Your task to perform on an android device: Go to accessibility settings Image 0: 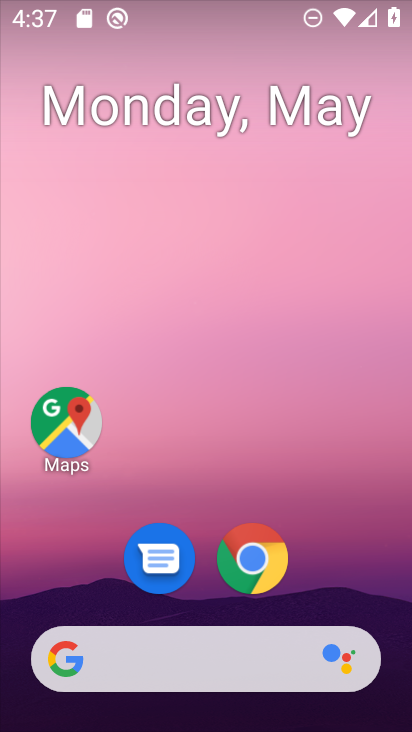
Step 0: drag from (324, 544) to (173, 88)
Your task to perform on an android device: Go to accessibility settings Image 1: 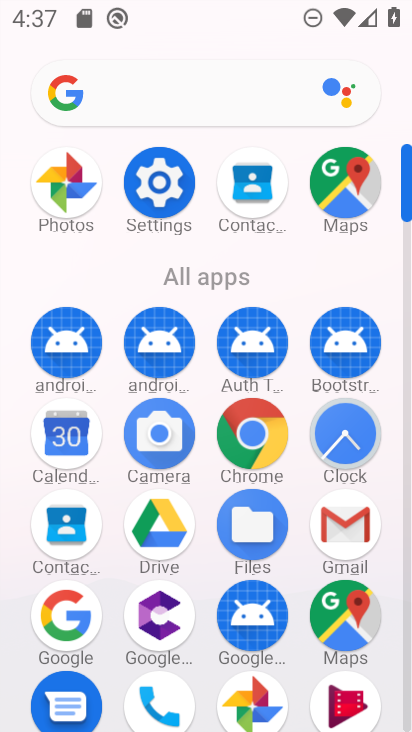
Step 1: click (158, 300)
Your task to perform on an android device: Go to accessibility settings Image 2: 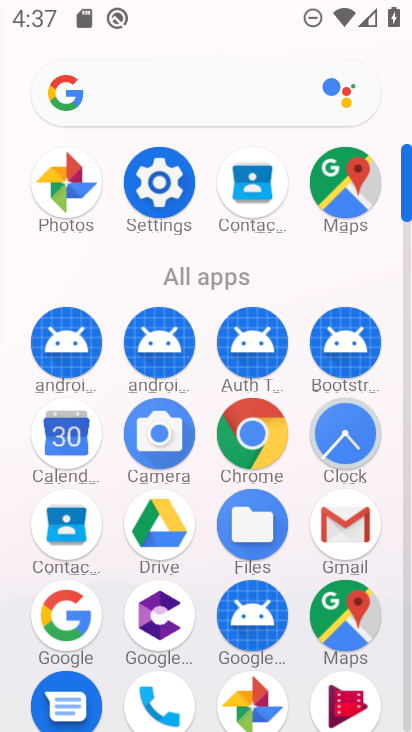
Step 2: click (158, 300)
Your task to perform on an android device: Go to accessibility settings Image 3: 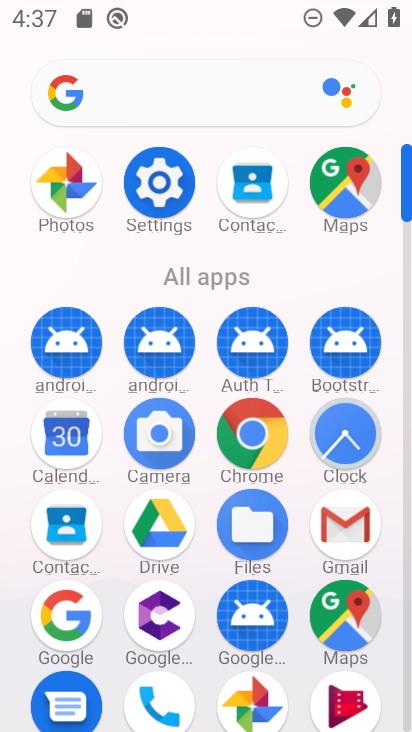
Step 3: click (157, 178)
Your task to perform on an android device: Go to accessibility settings Image 4: 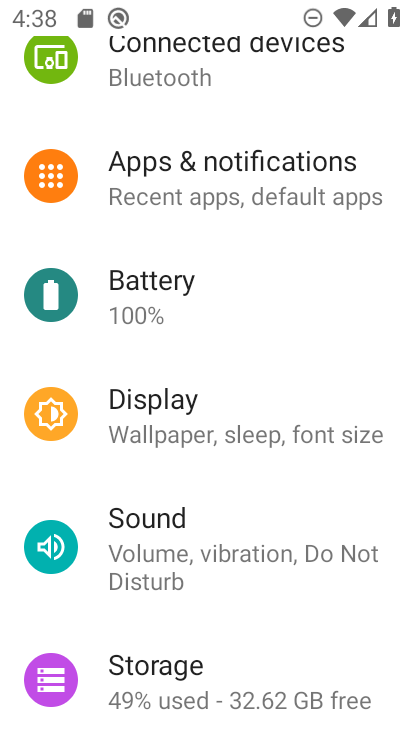
Step 4: drag from (207, 332) to (192, 211)
Your task to perform on an android device: Go to accessibility settings Image 5: 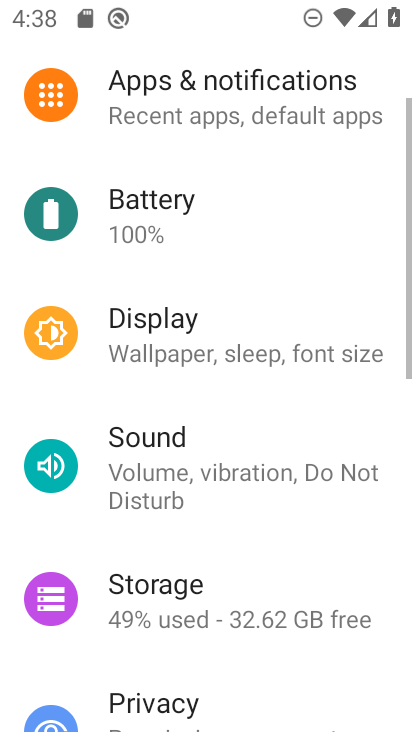
Step 5: drag from (234, 375) to (234, 234)
Your task to perform on an android device: Go to accessibility settings Image 6: 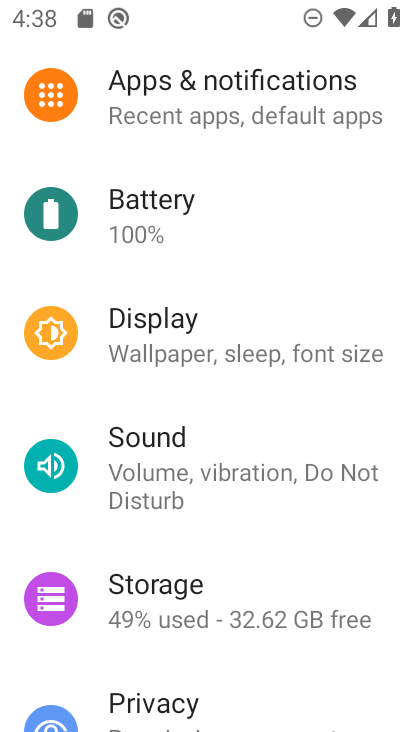
Step 6: drag from (214, 551) to (201, 168)
Your task to perform on an android device: Go to accessibility settings Image 7: 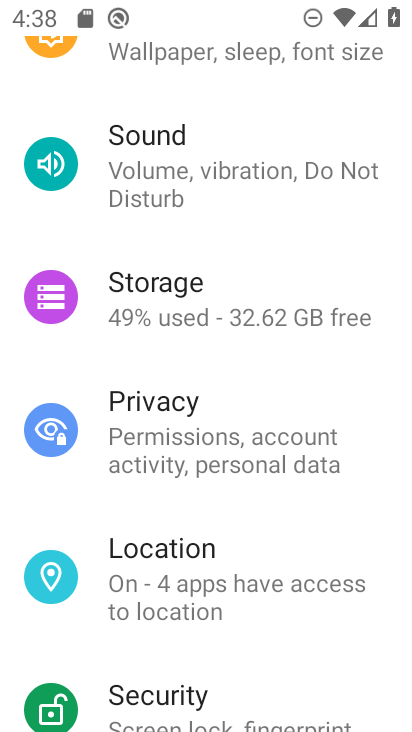
Step 7: drag from (226, 506) to (201, 254)
Your task to perform on an android device: Go to accessibility settings Image 8: 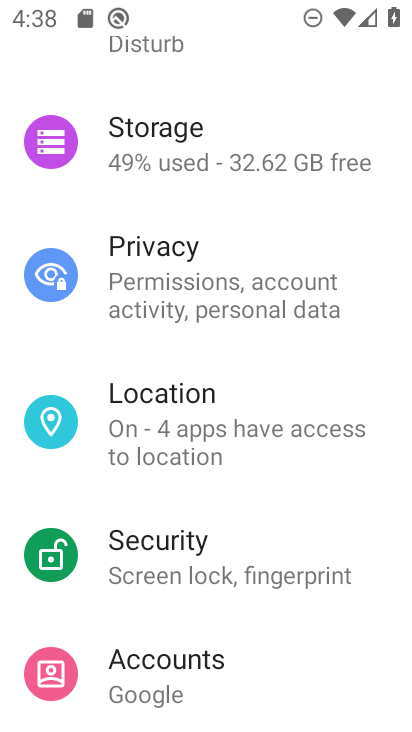
Step 8: drag from (192, 594) to (135, 204)
Your task to perform on an android device: Go to accessibility settings Image 9: 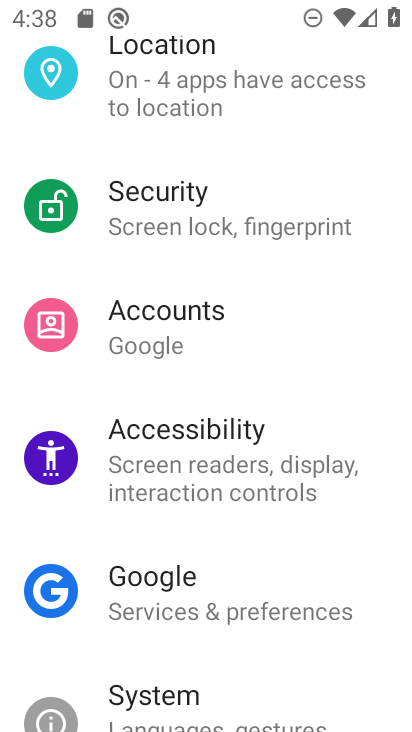
Step 9: click (189, 439)
Your task to perform on an android device: Go to accessibility settings Image 10: 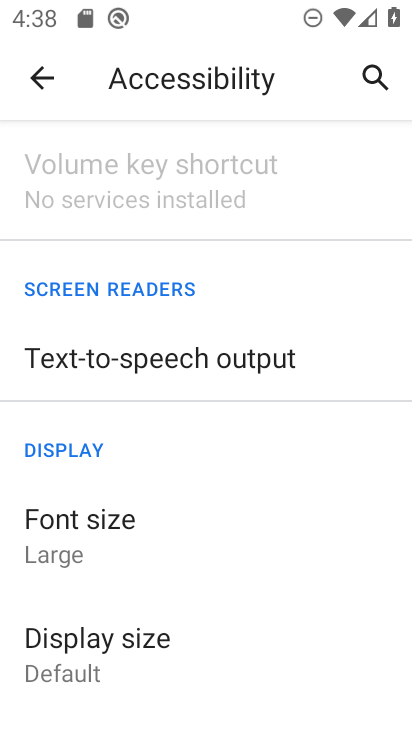
Step 10: task complete